Your task to perform on an android device: turn on bluetooth scan Image 0: 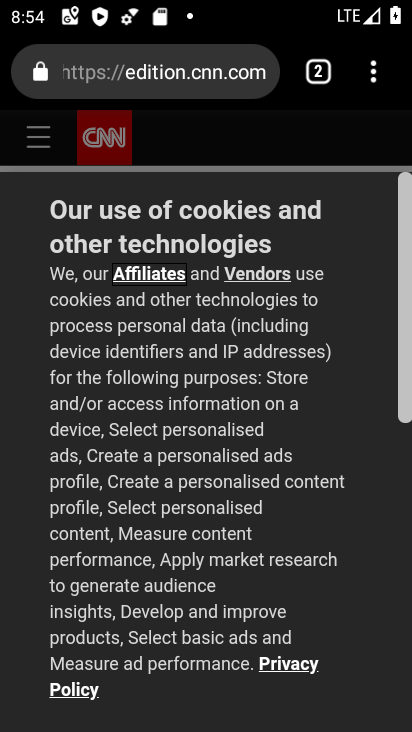
Step 0: press home button
Your task to perform on an android device: turn on bluetooth scan Image 1: 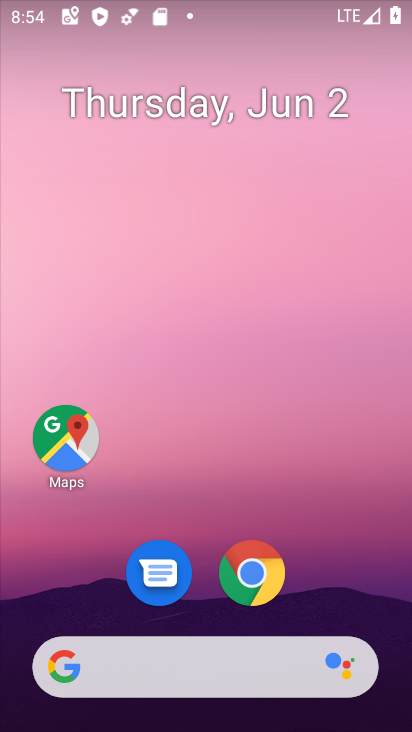
Step 1: drag from (371, 708) to (193, 5)
Your task to perform on an android device: turn on bluetooth scan Image 2: 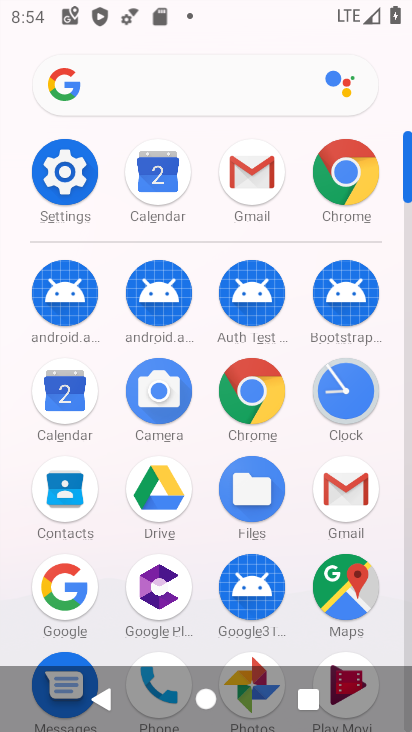
Step 2: click (74, 158)
Your task to perform on an android device: turn on bluetooth scan Image 3: 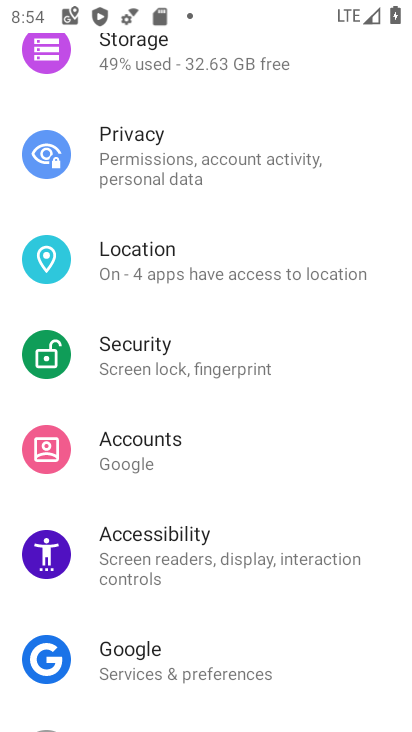
Step 3: click (178, 237)
Your task to perform on an android device: turn on bluetooth scan Image 4: 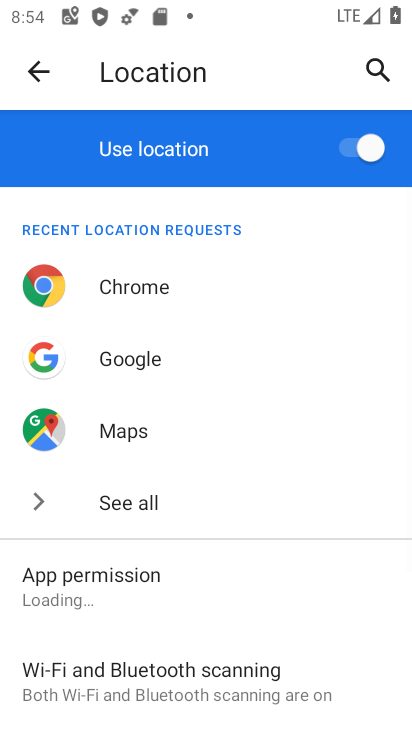
Step 4: drag from (175, 624) to (101, 157)
Your task to perform on an android device: turn on bluetooth scan Image 5: 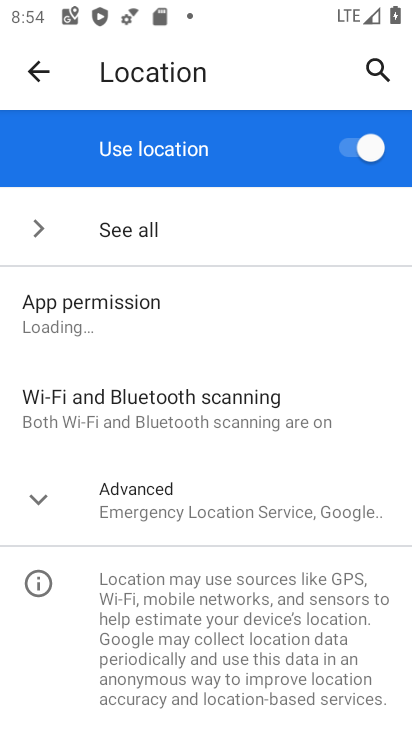
Step 5: click (175, 396)
Your task to perform on an android device: turn on bluetooth scan Image 6: 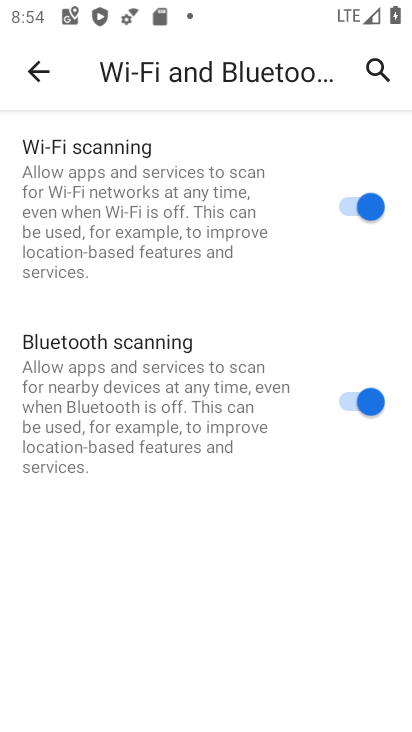
Step 6: task complete